Your task to perform on an android device: Open network settings Image 0: 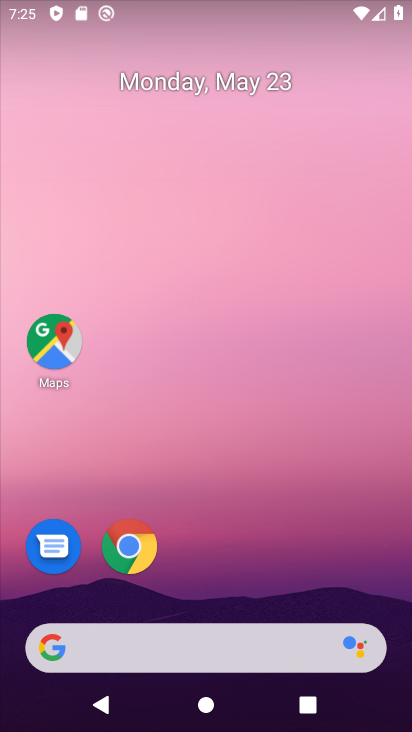
Step 0: drag from (376, 602) to (394, 206)
Your task to perform on an android device: Open network settings Image 1: 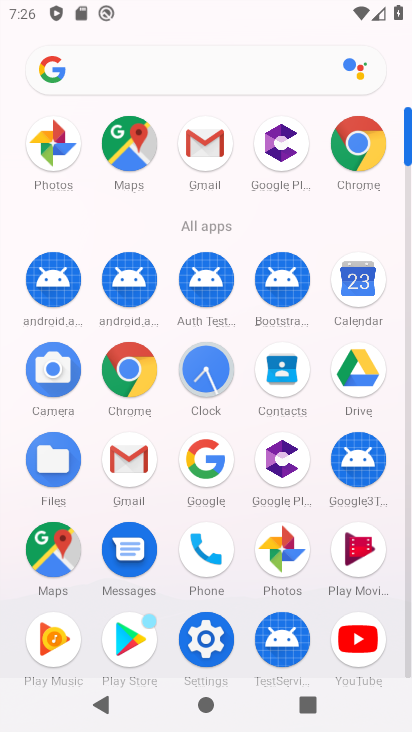
Step 1: click (211, 656)
Your task to perform on an android device: Open network settings Image 2: 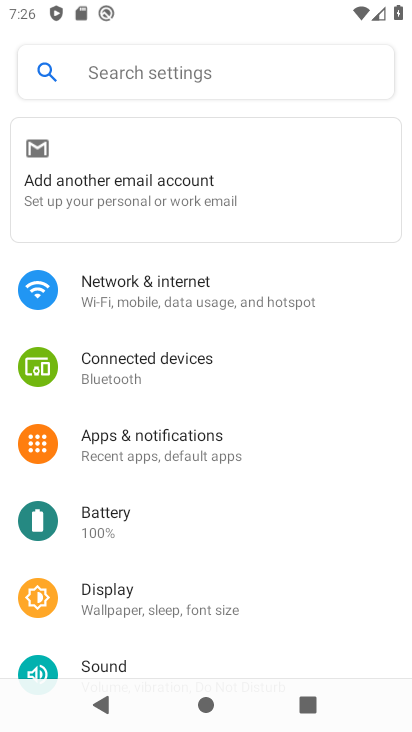
Step 2: drag from (354, 631) to (357, 450)
Your task to perform on an android device: Open network settings Image 3: 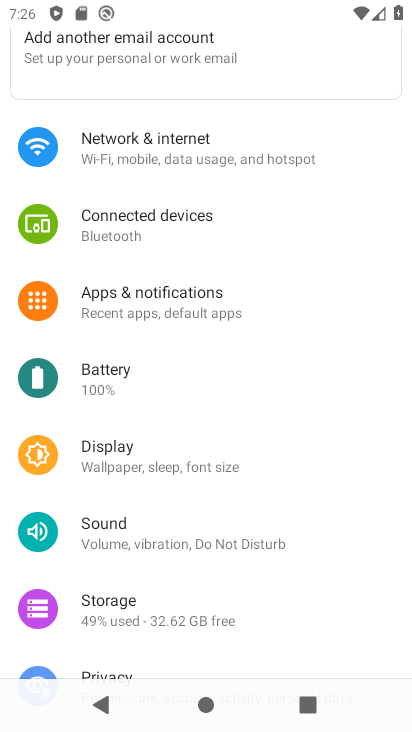
Step 3: drag from (361, 628) to (347, 420)
Your task to perform on an android device: Open network settings Image 4: 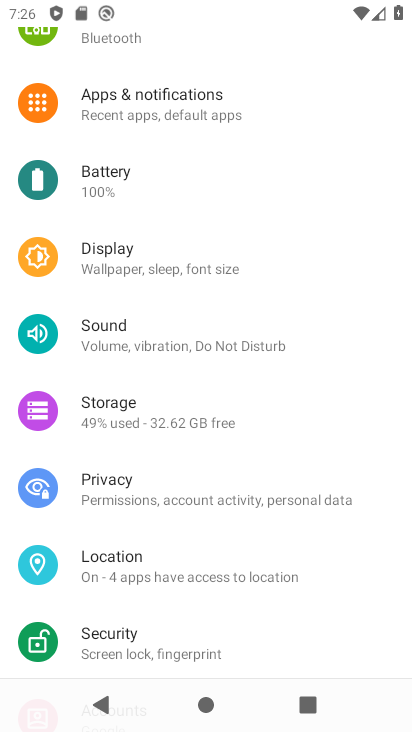
Step 4: drag from (363, 611) to (369, 493)
Your task to perform on an android device: Open network settings Image 5: 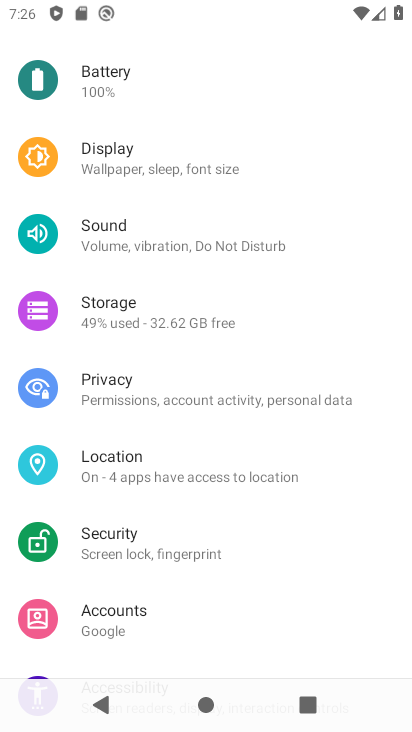
Step 5: drag from (370, 622) to (362, 501)
Your task to perform on an android device: Open network settings Image 6: 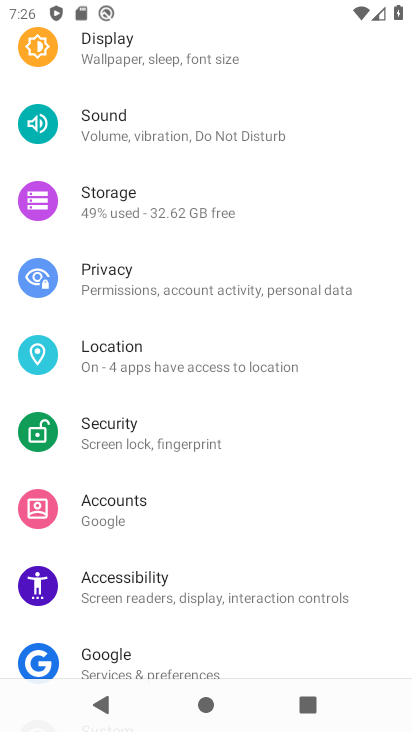
Step 6: drag from (346, 599) to (337, 484)
Your task to perform on an android device: Open network settings Image 7: 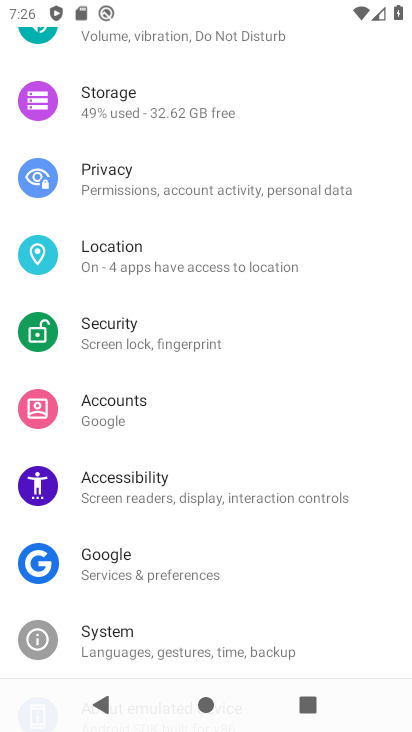
Step 7: drag from (350, 628) to (357, 493)
Your task to perform on an android device: Open network settings Image 8: 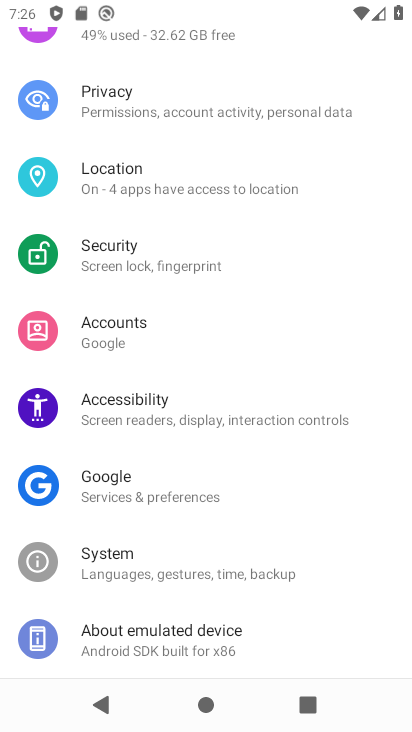
Step 8: drag from (366, 478) to (360, 564)
Your task to perform on an android device: Open network settings Image 9: 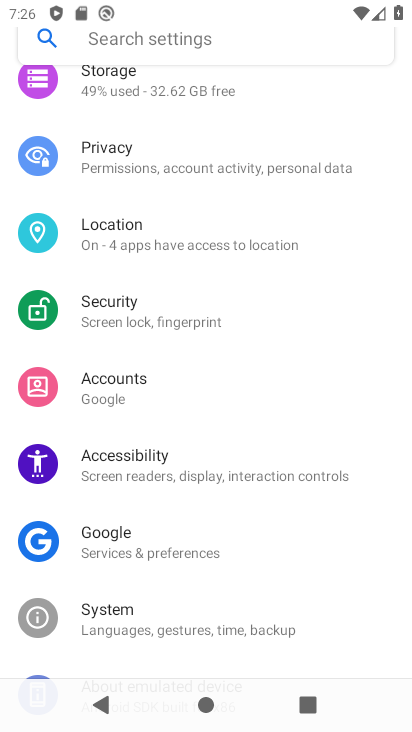
Step 9: drag from (369, 451) to (374, 538)
Your task to perform on an android device: Open network settings Image 10: 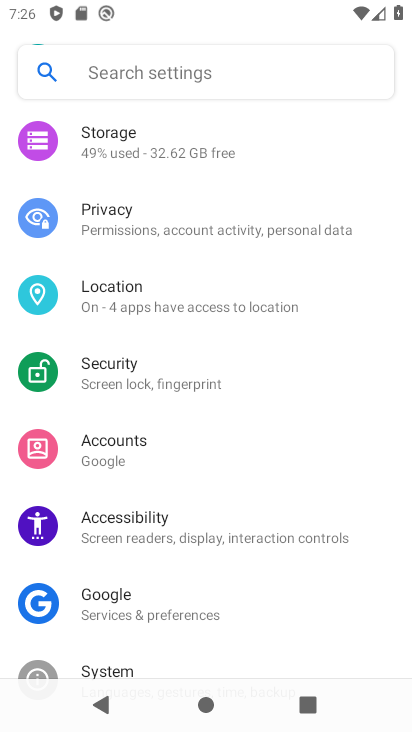
Step 10: drag from (377, 423) to (367, 513)
Your task to perform on an android device: Open network settings Image 11: 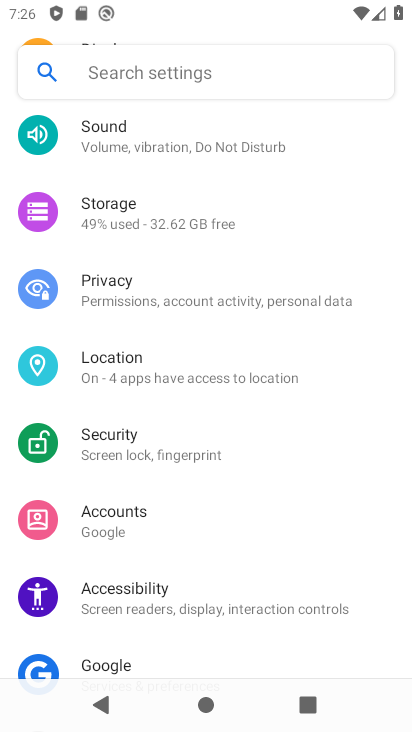
Step 11: drag from (360, 410) to (364, 488)
Your task to perform on an android device: Open network settings Image 12: 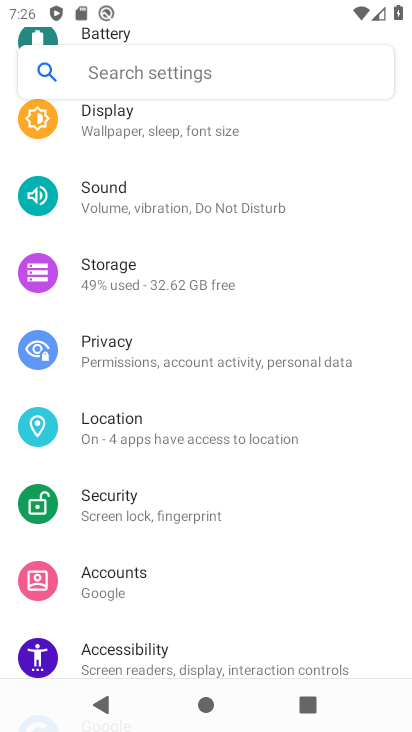
Step 12: drag from (374, 379) to (363, 468)
Your task to perform on an android device: Open network settings Image 13: 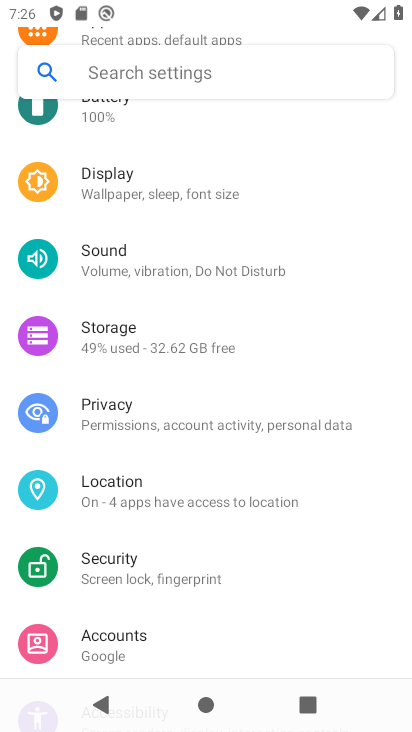
Step 13: drag from (370, 354) to (370, 452)
Your task to perform on an android device: Open network settings Image 14: 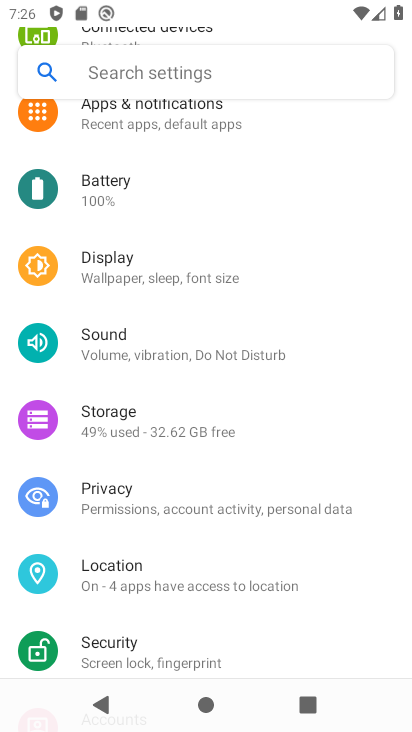
Step 14: drag from (373, 328) to (363, 424)
Your task to perform on an android device: Open network settings Image 15: 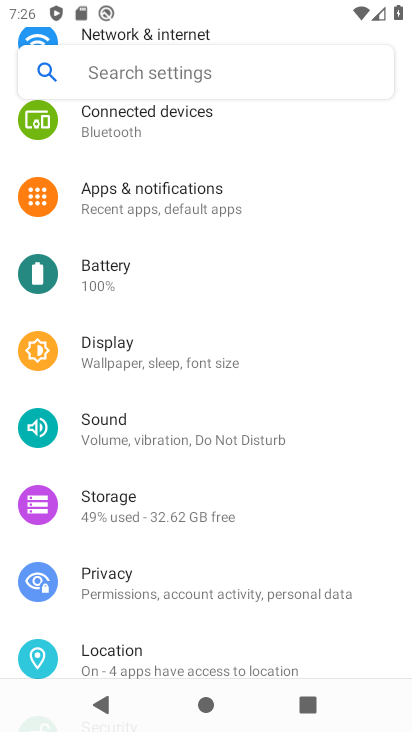
Step 15: drag from (371, 308) to (342, 417)
Your task to perform on an android device: Open network settings Image 16: 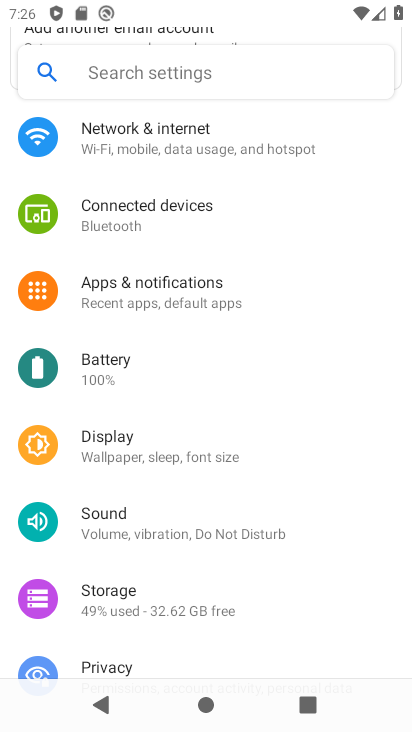
Step 16: drag from (344, 306) to (334, 416)
Your task to perform on an android device: Open network settings Image 17: 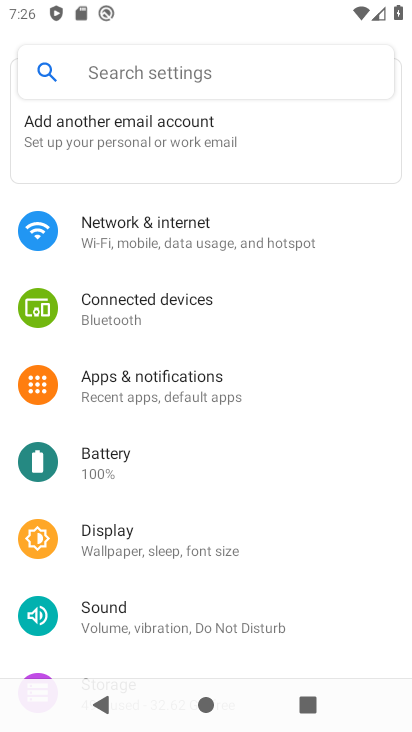
Step 17: drag from (344, 297) to (322, 436)
Your task to perform on an android device: Open network settings Image 18: 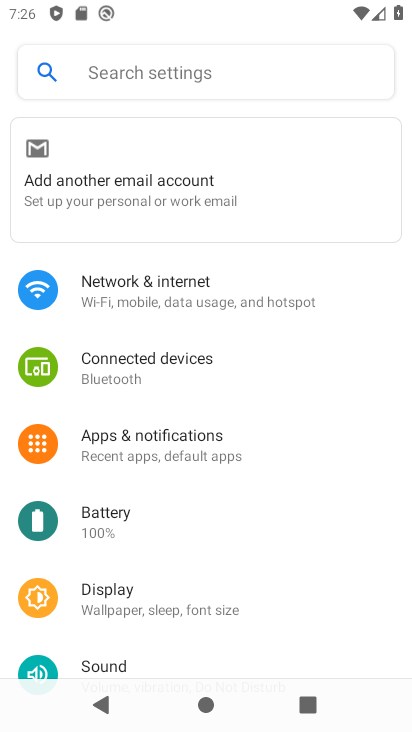
Step 18: drag from (350, 278) to (358, 444)
Your task to perform on an android device: Open network settings Image 19: 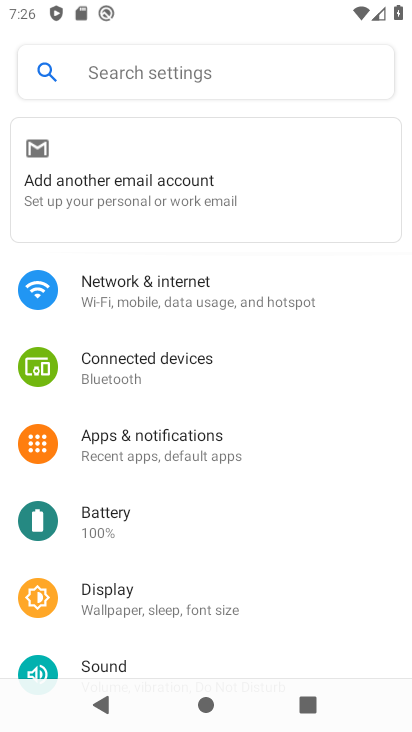
Step 19: click (274, 294)
Your task to perform on an android device: Open network settings Image 20: 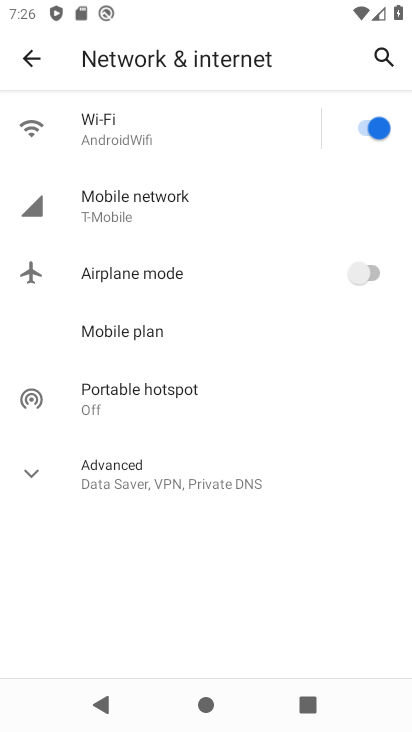
Step 20: task complete